Your task to perform on an android device: turn on javascript in the chrome app Image 0: 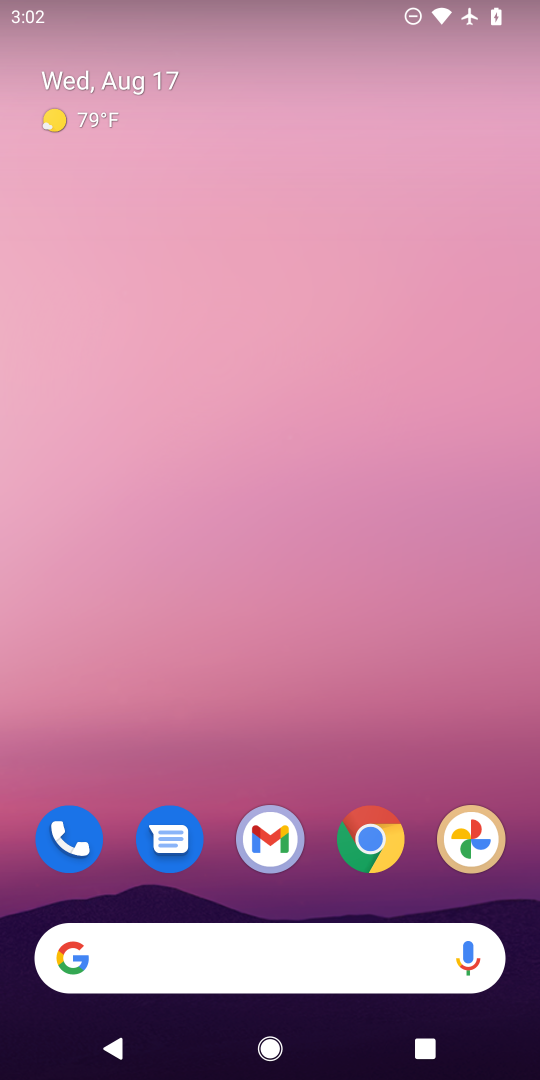
Step 0: click (366, 839)
Your task to perform on an android device: turn on javascript in the chrome app Image 1: 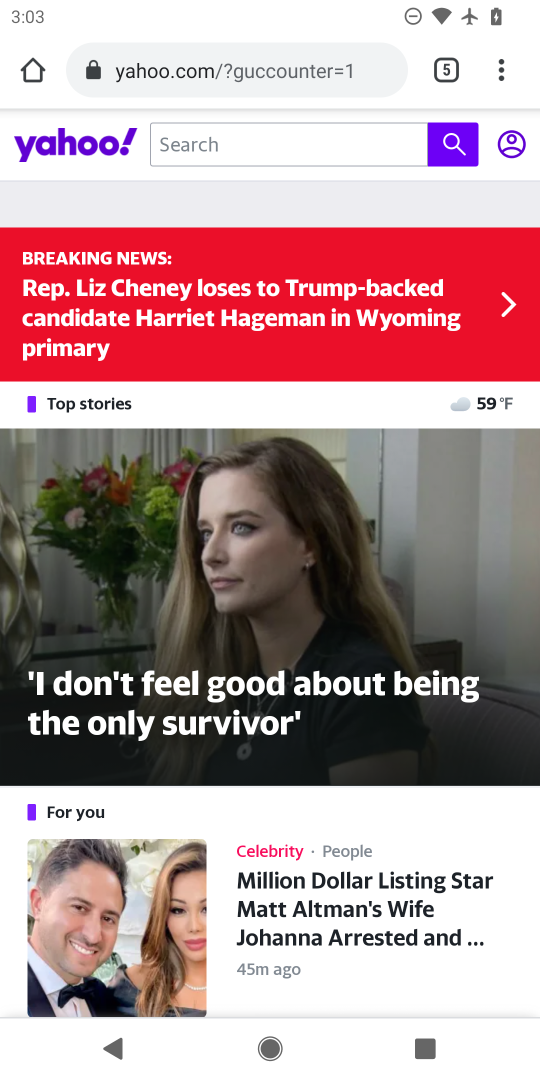
Step 1: click (501, 78)
Your task to perform on an android device: turn on javascript in the chrome app Image 2: 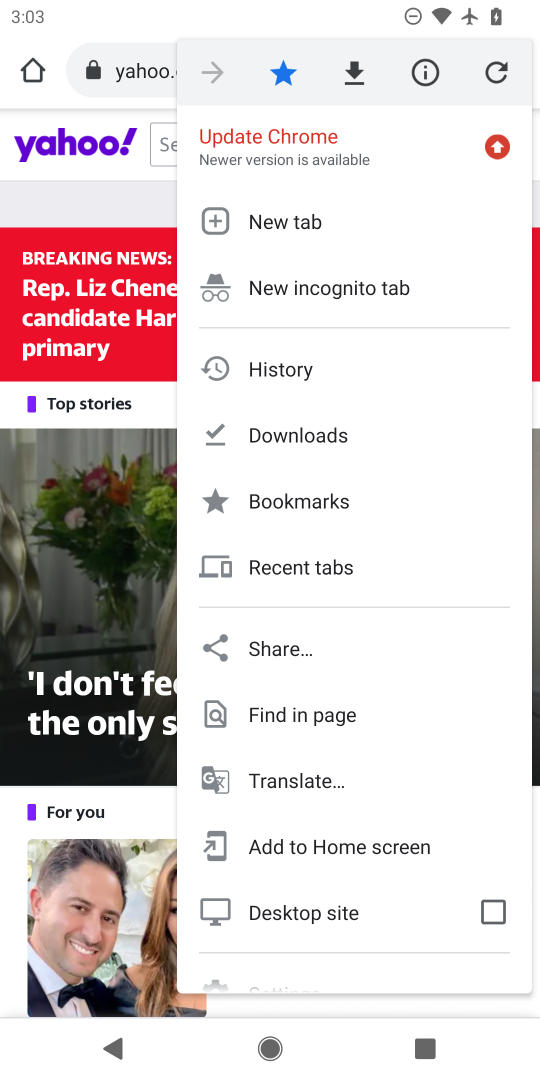
Step 2: drag from (273, 874) to (258, 390)
Your task to perform on an android device: turn on javascript in the chrome app Image 3: 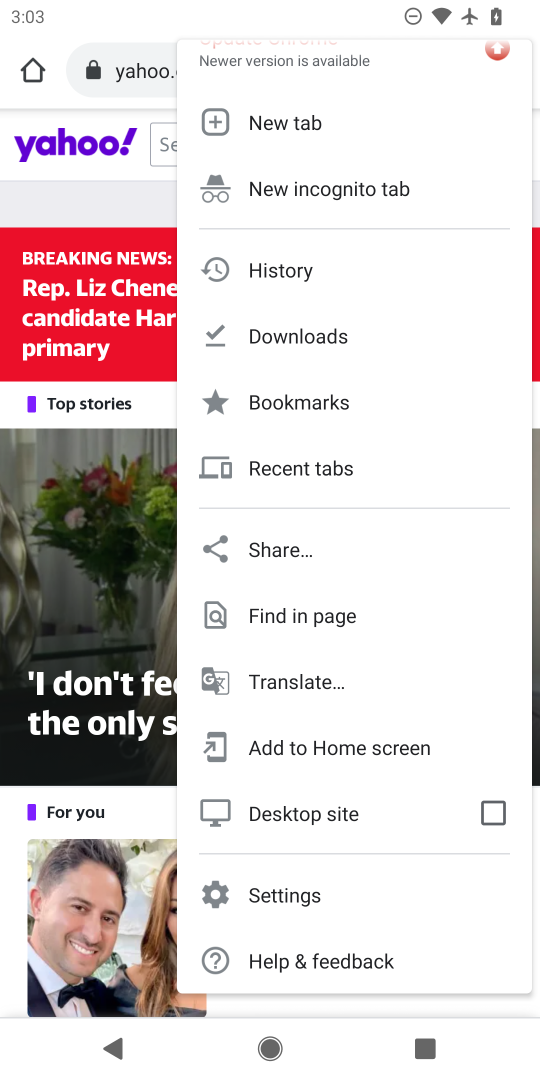
Step 3: click (280, 890)
Your task to perform on an android device: turn on javascript in the chrome app Image 4: 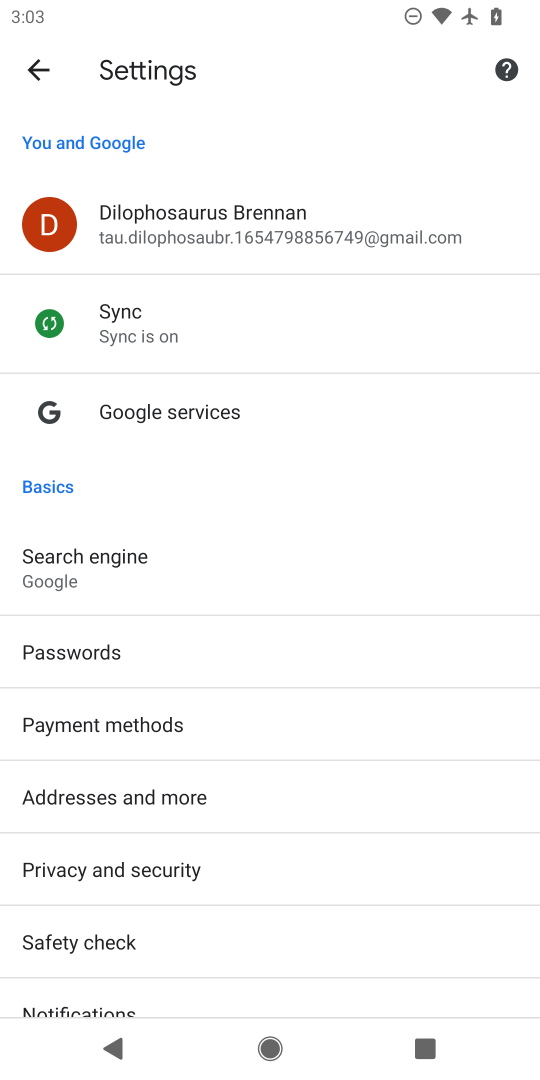
Step 4: drag from (183, 925) to (178, 358)
Your task to perform on an android device: turn on javascript in the chrome app Image 5: 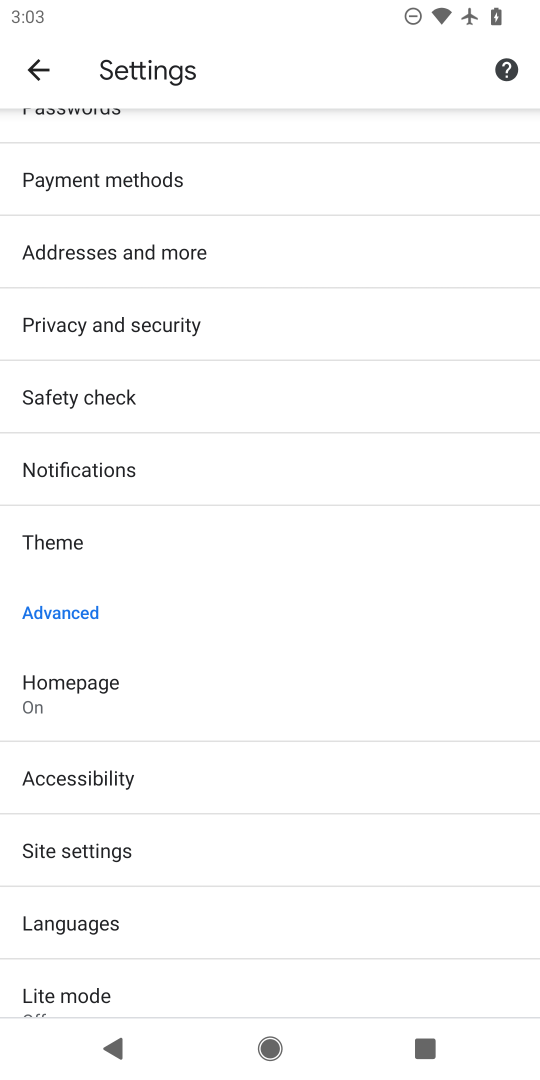
Step 5: click (76, 858)
Your task to perform on an android device: turn on javascript in the chrome app Image 6: 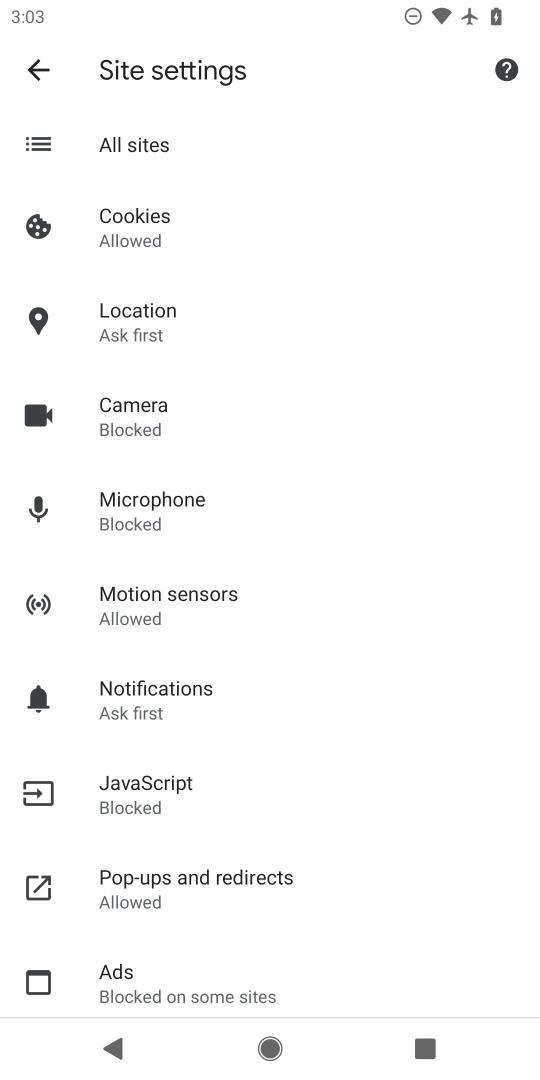
Step 6: click (147, 792)
Your task to perform on an android device: turn on javascript in the chrome app Image 7: 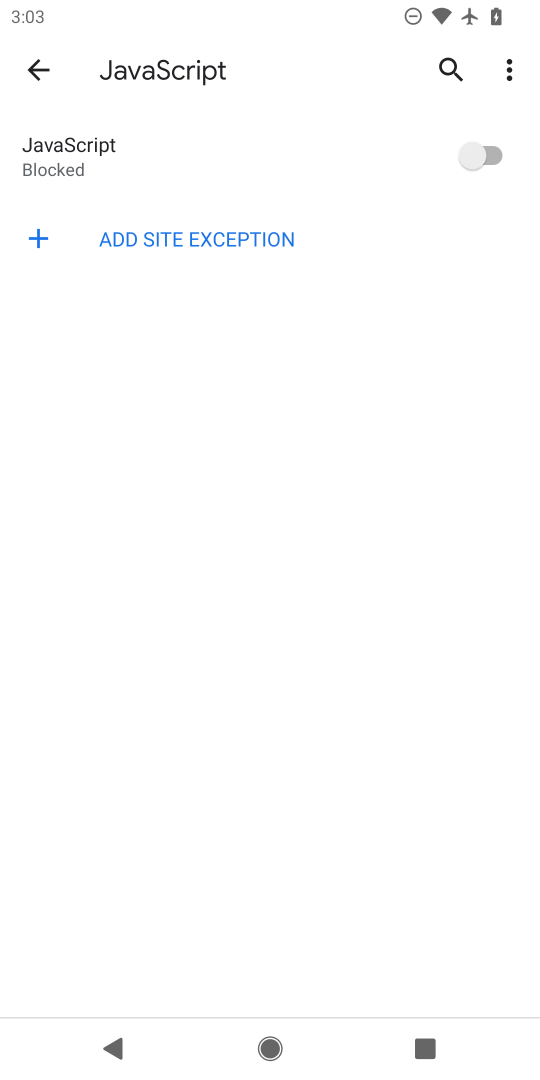
Step 7: click (481, 155)
Your task to perform on an android device: turn on javascript in the chrome app Image 8: 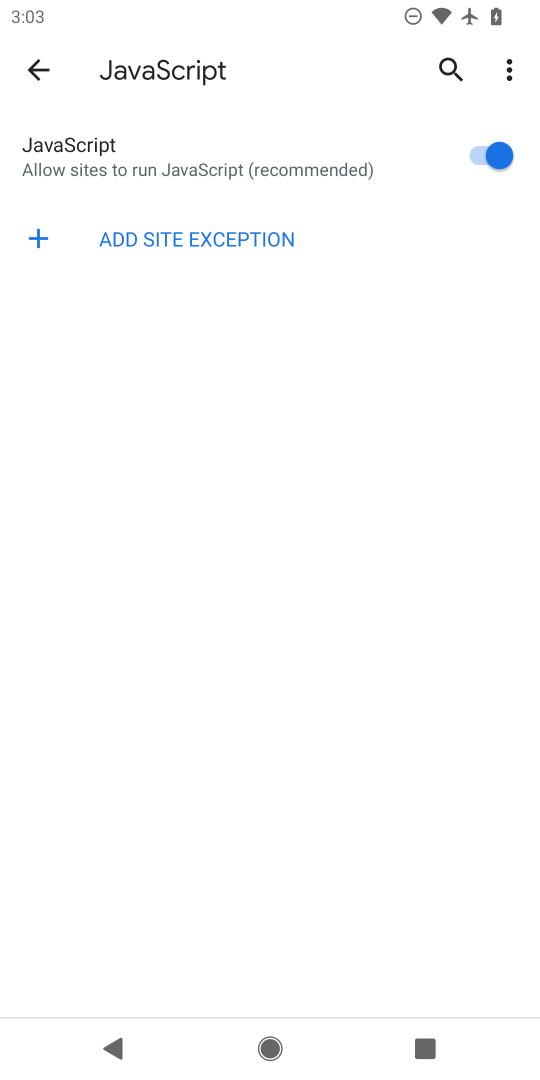
Step 8: task complete